Your task to perform on an android device: see sites visited before in the chrome app Image 0: 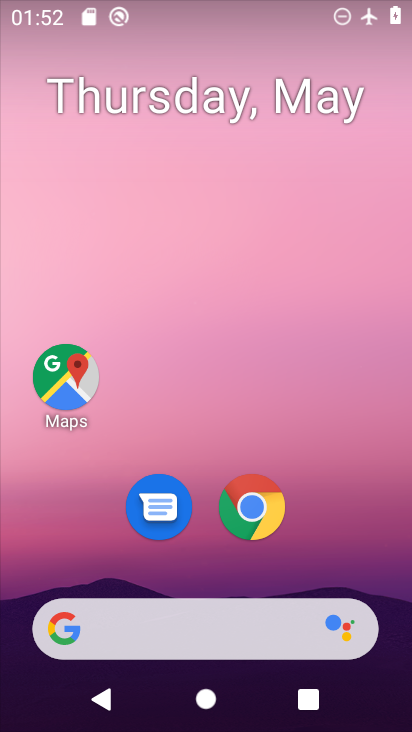
Step 0: click (274, 501)
Your task to perform on an android device: see sites visited before in the chrome app Image 1: 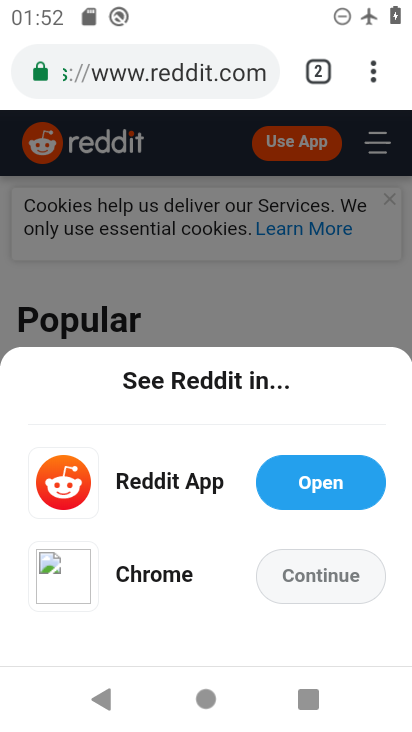
Step 1: click (295, 560)
Your task to perform on an android device: see sites visited before in the chrome app Image 2: 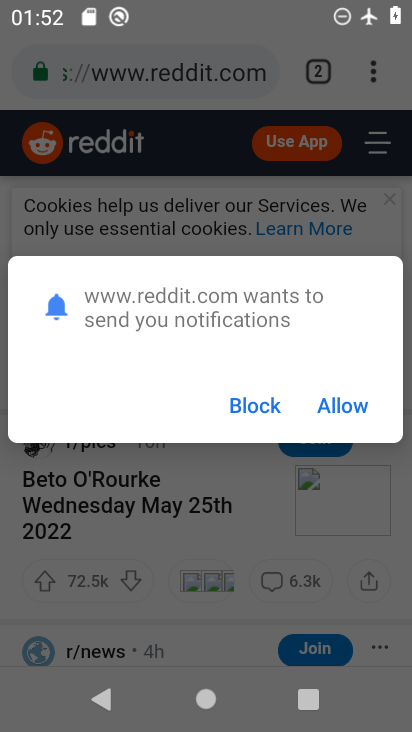
Step 2: click (349, 413)
Your task to perform on an android device: see sites visited before in the chrome app Image 3: 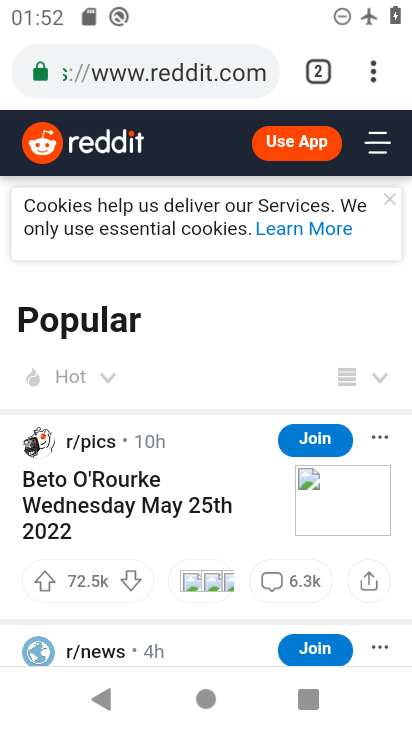
Step 3: click (381, 74)
Your task to perform on an android device: see sites visited before in the chrome app Image 4: 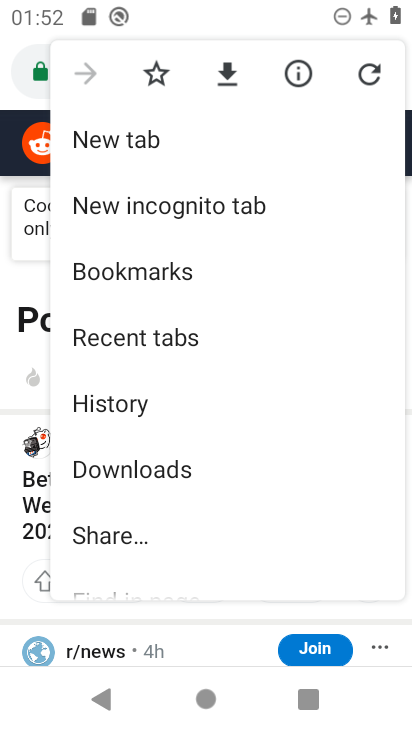
Step 4: click (173, 341)
Your task to perform on an android device: see sites visited before in the chrome app Image 5: 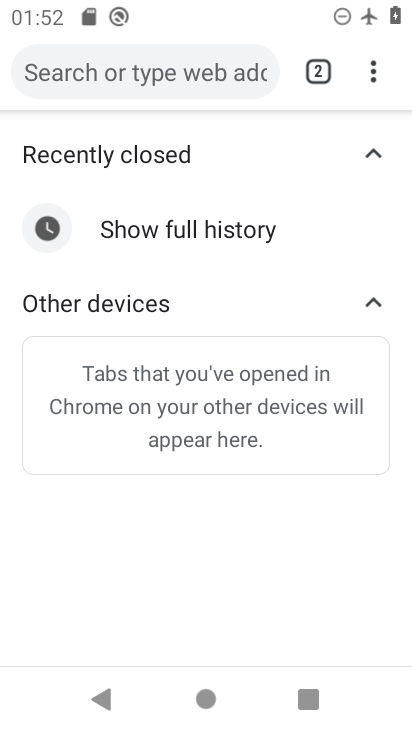
Step 5: task complete